Your task to perform on an android device: open app "Life360: Find Family & Friends" Image 0: 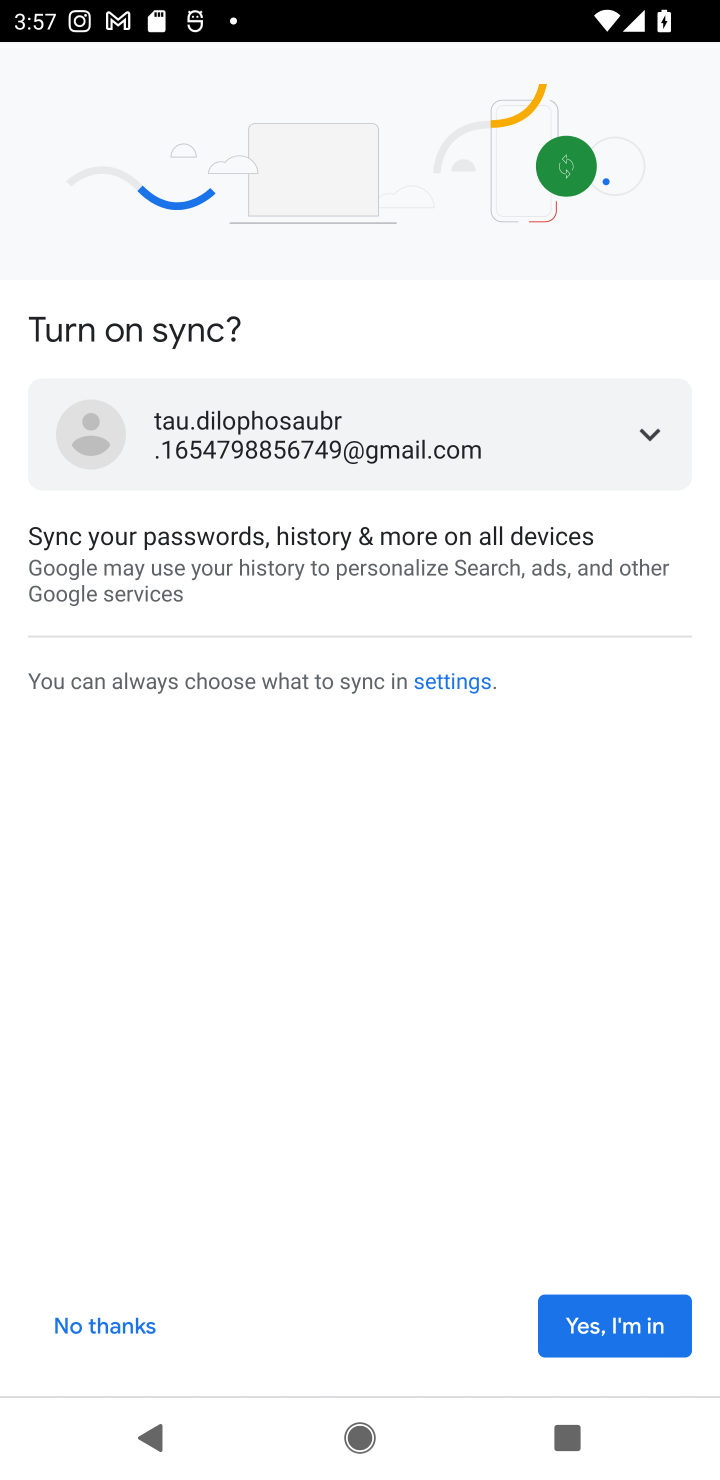
Step 0: press home button
Your task to perform on an android device: open app "Life360: Find Family & Friends" Image 1: 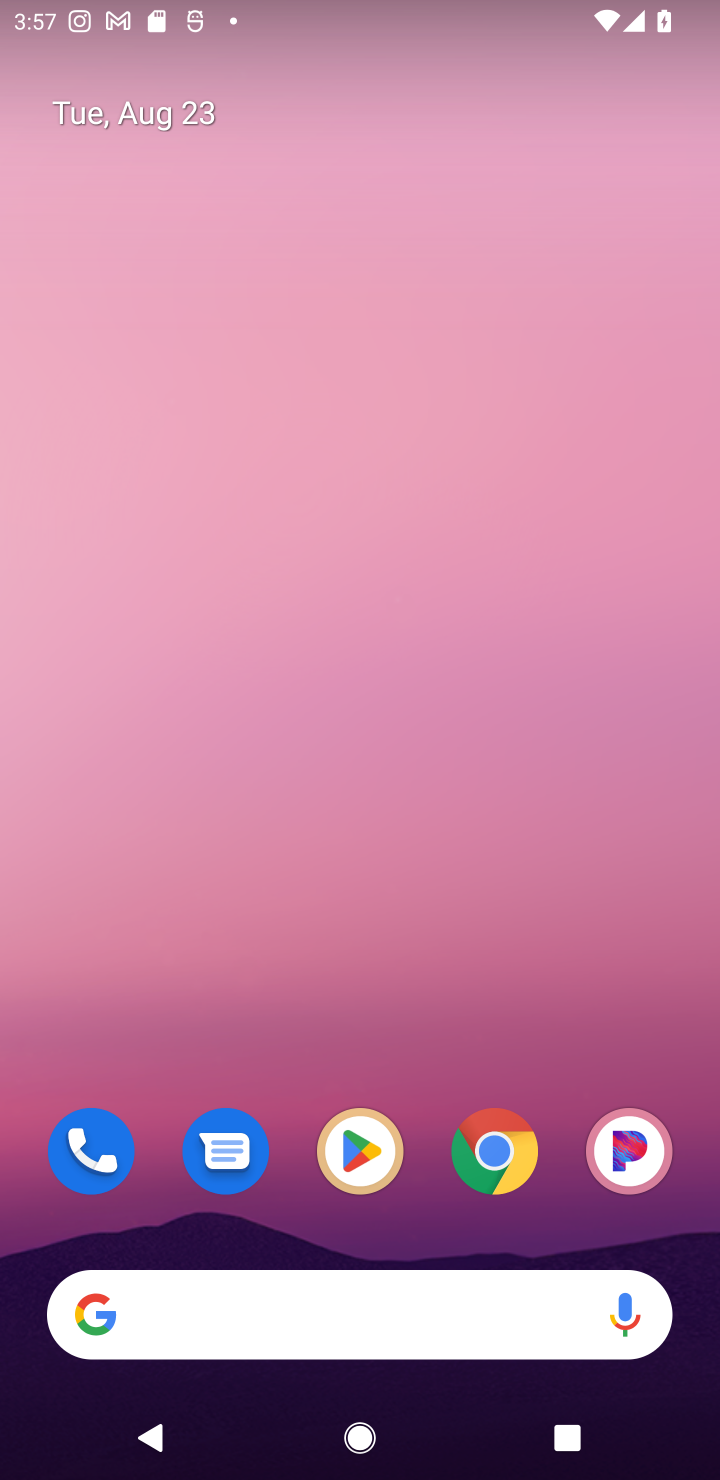
Step 1: click (348, 1157)
Your task to perform on an android device: open app "Life360: Find Family & Friends" Image 2: 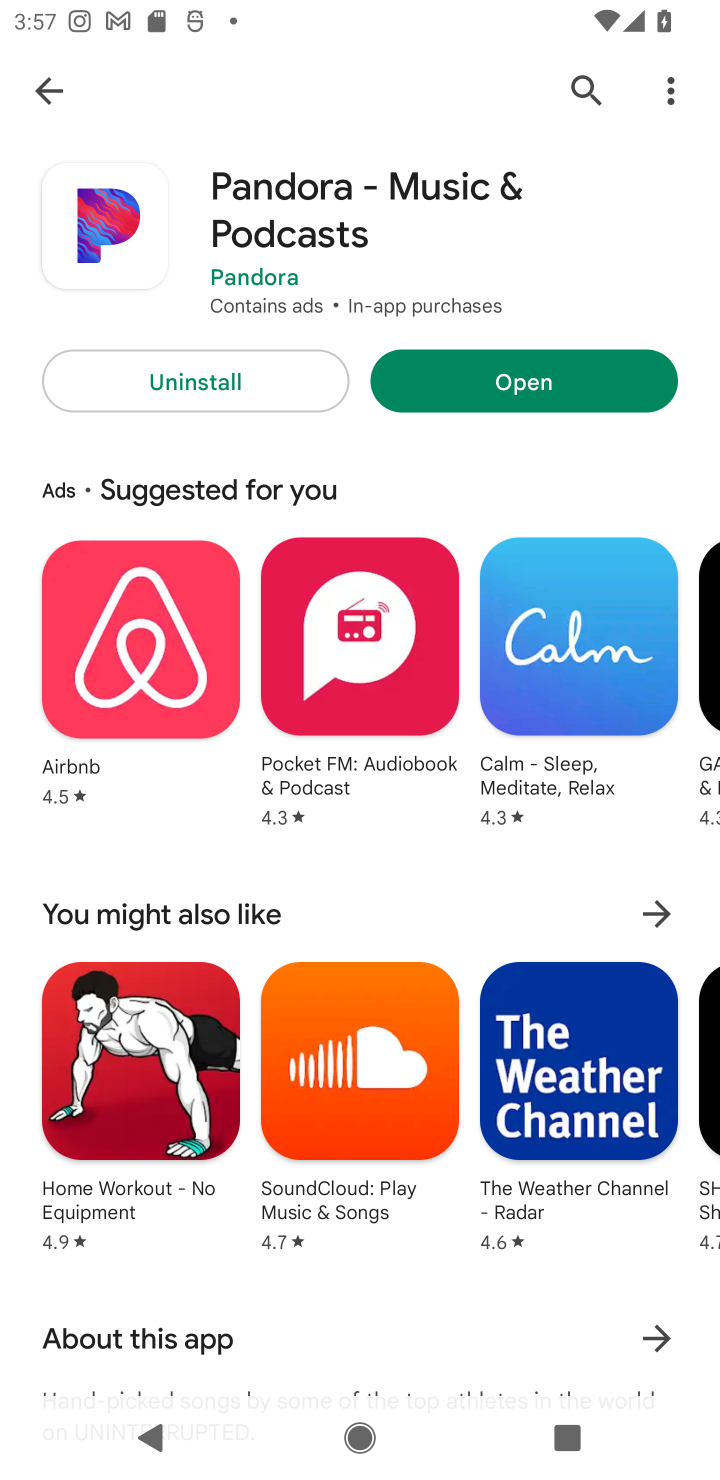
Step 2: click (589, 76)
Your task to perform on an android device: open app "Life360: Find Family & Friends" Image 3: 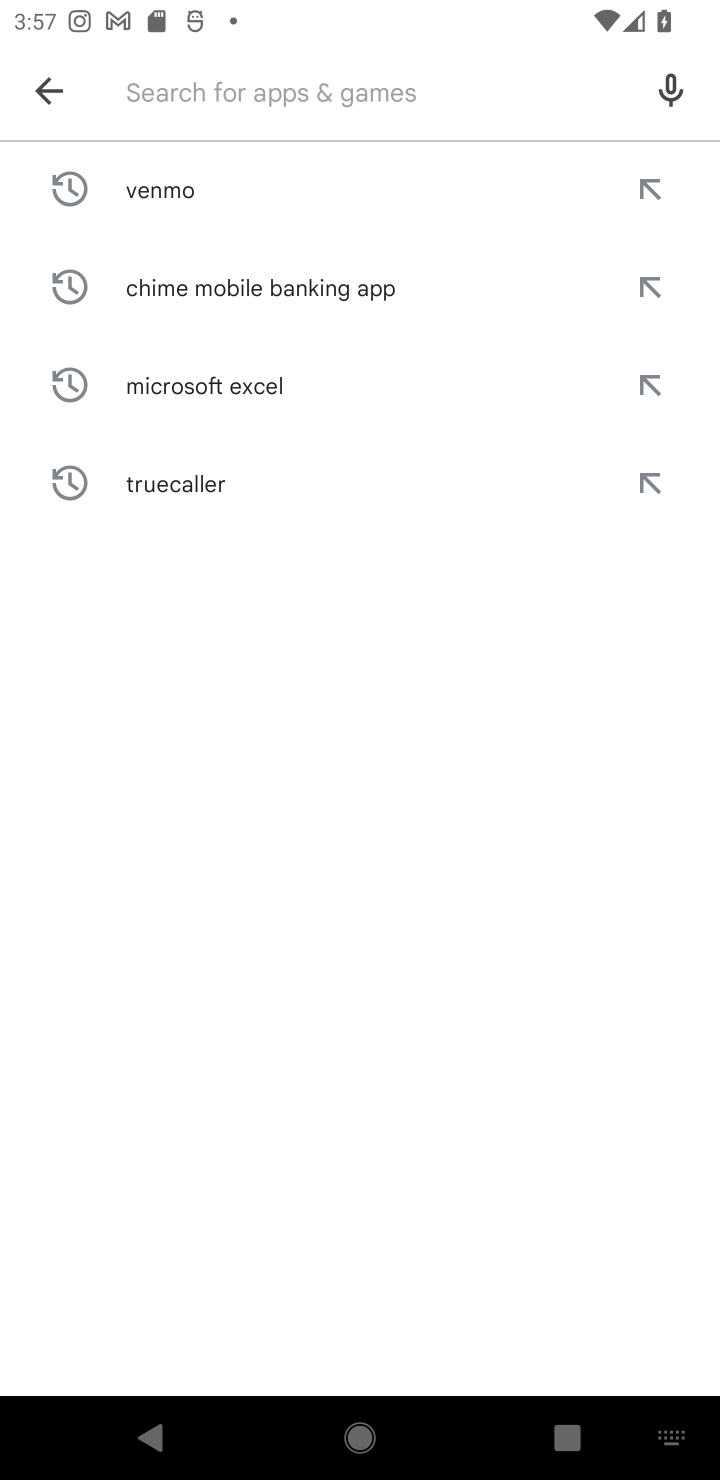
Step 3: type "Life360: Find Family & Friends"
Your task to perform on an android device: open app "Life360: Find Family & Friends" Image 4: 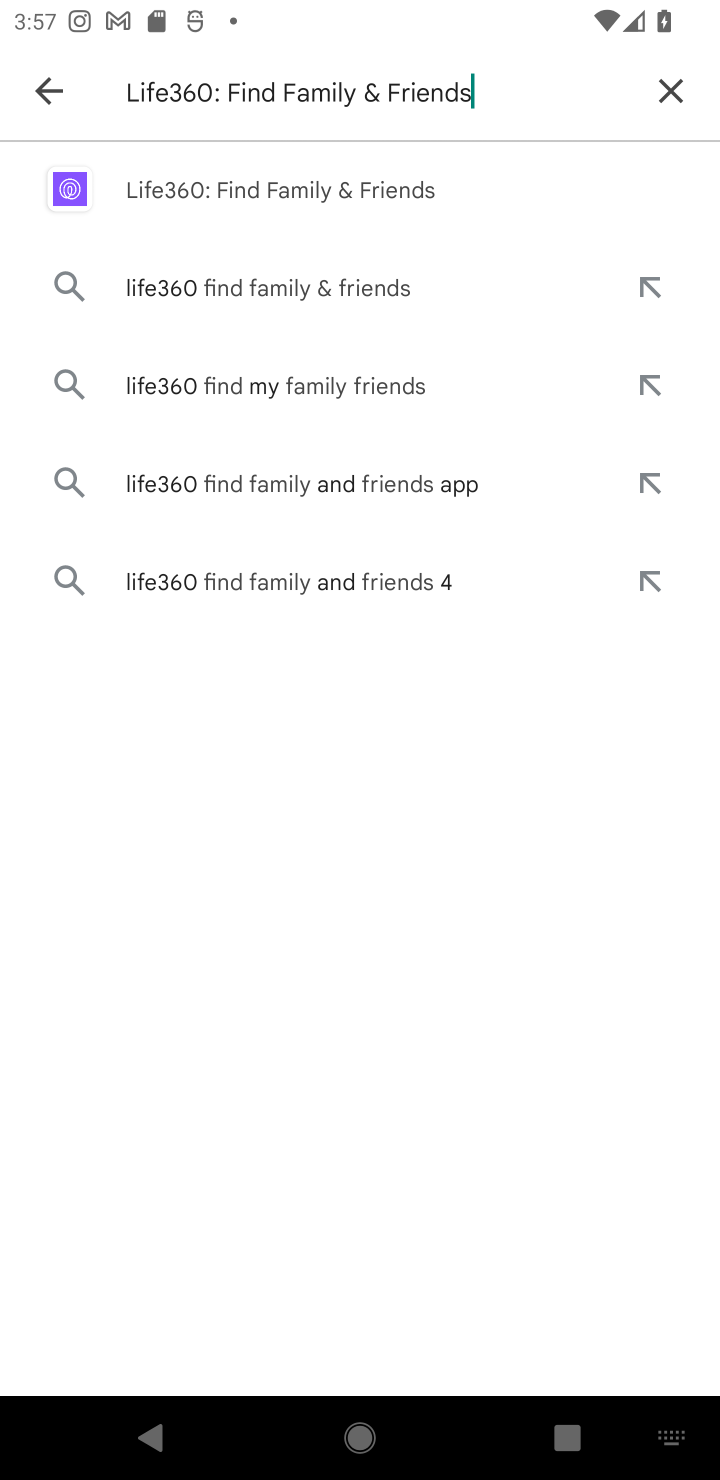
Step 4: click (307, 185)
Your task to perform on an android device: open app "Life360: Find Family & Friends" Image 5: 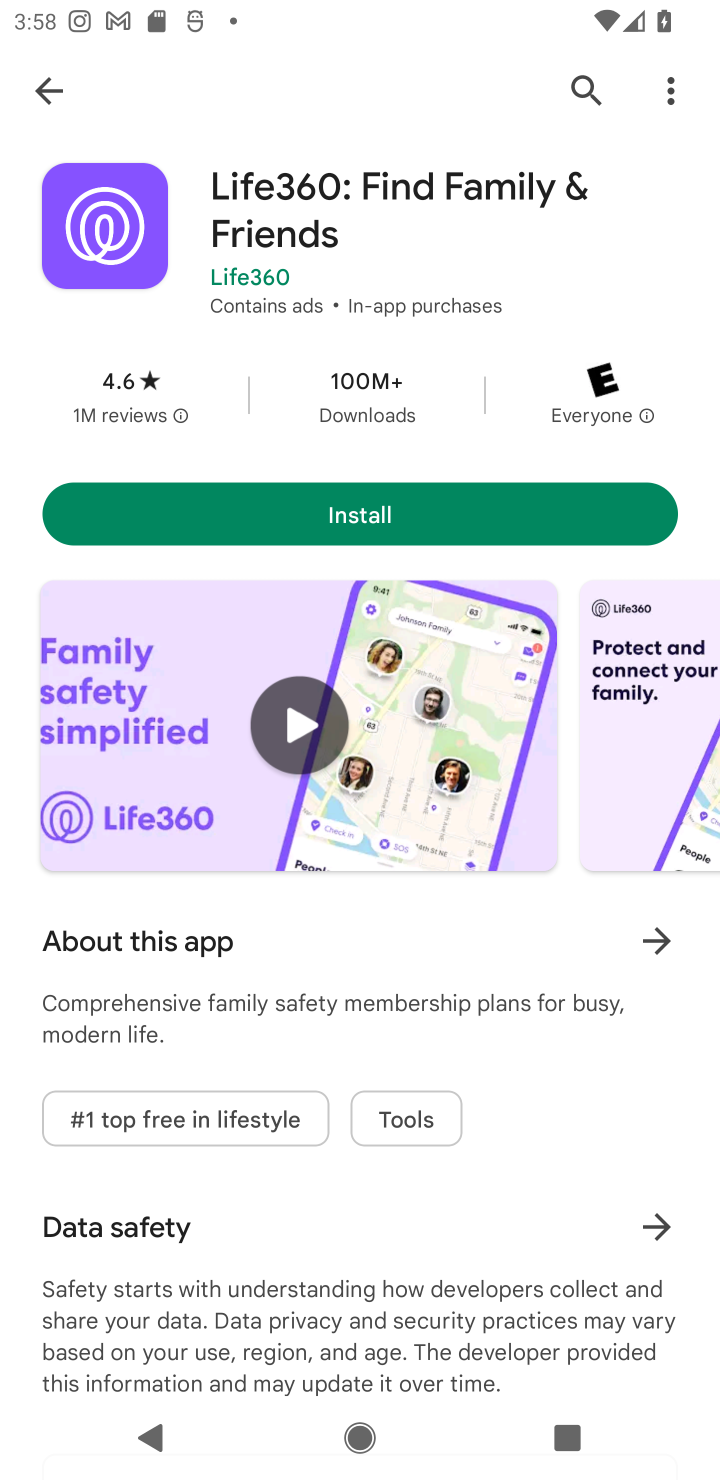
Step 5: task complete